Your task to perform on an android device: delete location history Image 0: 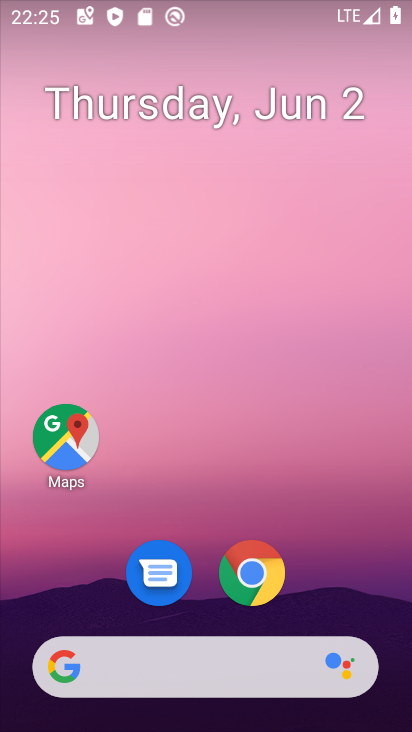
Step 0: drag from (359, 591) to (331, 133)
Your task to perform on an android device: delete location history Image 1: 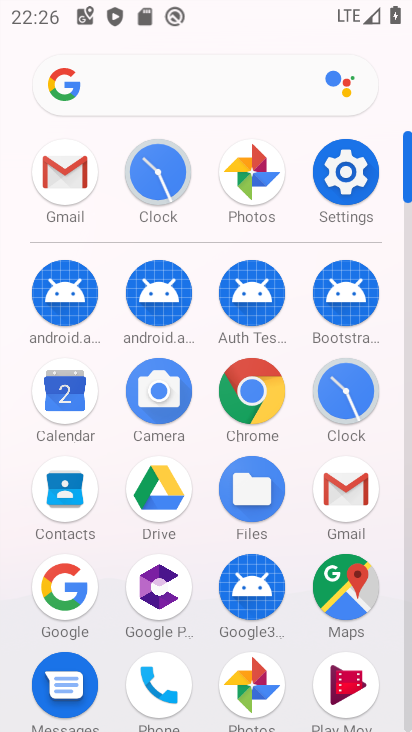
Step 1: click (363, 174)
Your task to perform on an android device: delete location history Image 2: 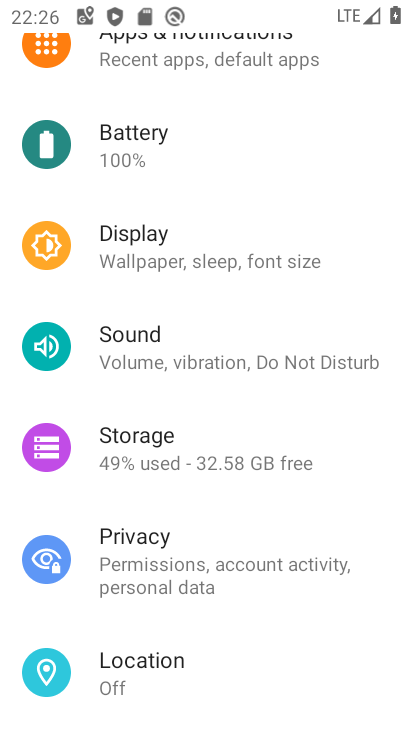
Step 2: drag from (272, 588) to (291, 62)
Your task to perform on an android device: delete location history Image 3: 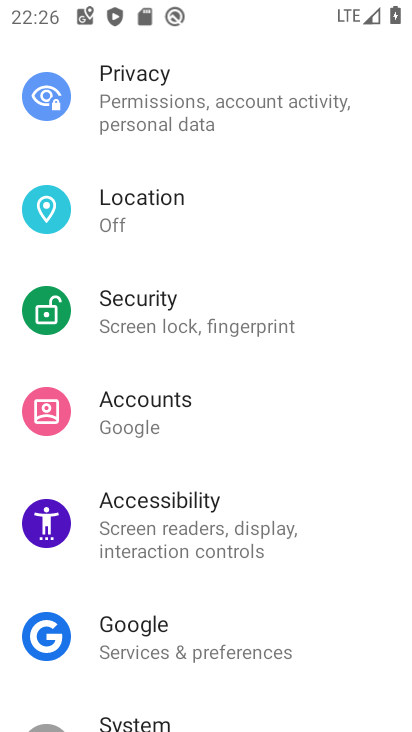
Step 3: click (214, 219)
Your task to perform on an android device: delete location history Image 4: 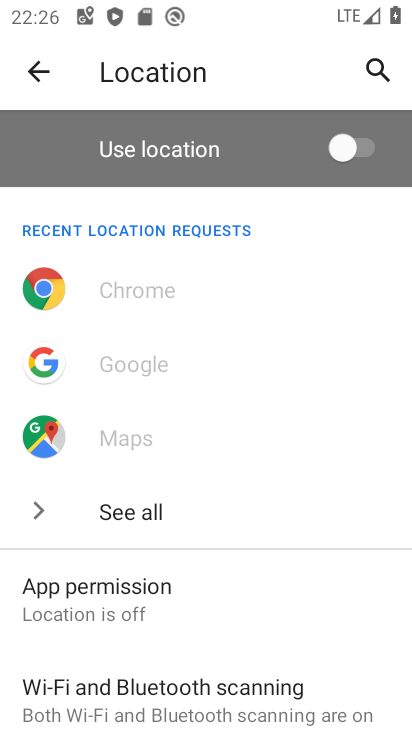
Step 4: drag from (290, 606) to (312, 207)
Your task to perform on an android device: delete location history Image 5: 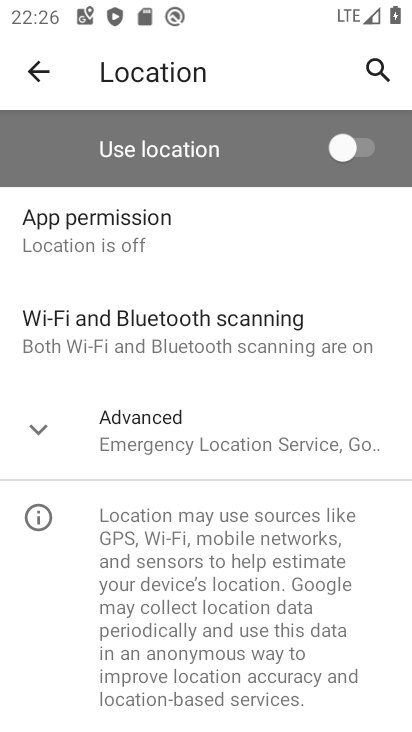
Step 5: click (269, 433)
Your task to perform on an android device: delete location history Image 6: 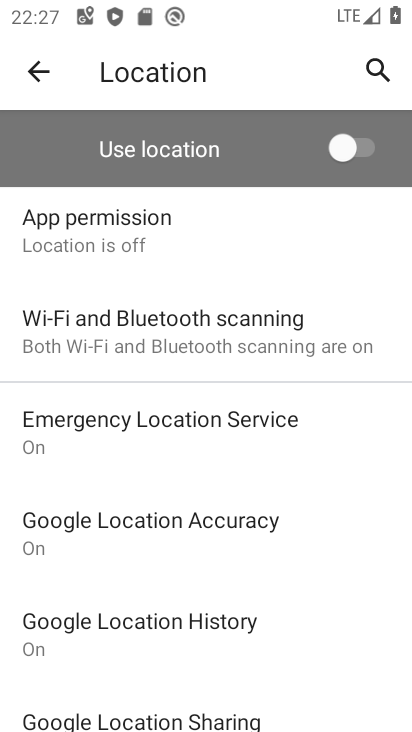
Step 6: click (210, 622)
Your task to perform on an android device: delete location history Image 7: 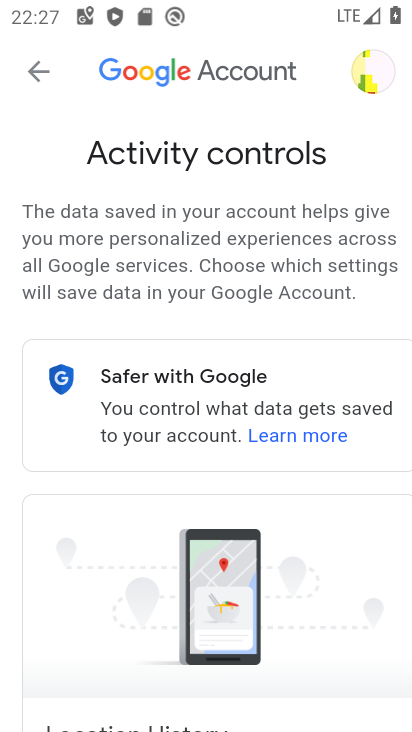
Step 7: drag from (210, 651) to (251, 211)
Your task to perform on an android device: delete location history Image 8: 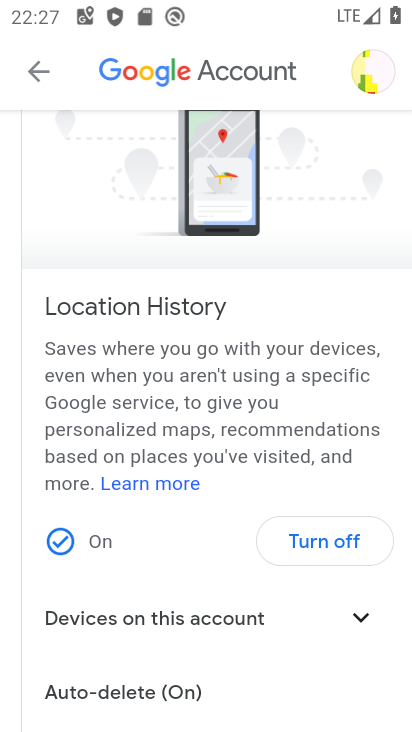
Step 8: drag from (235, 665) to (226, 423)
Your task to perform on an android device: delete location history Image 9: 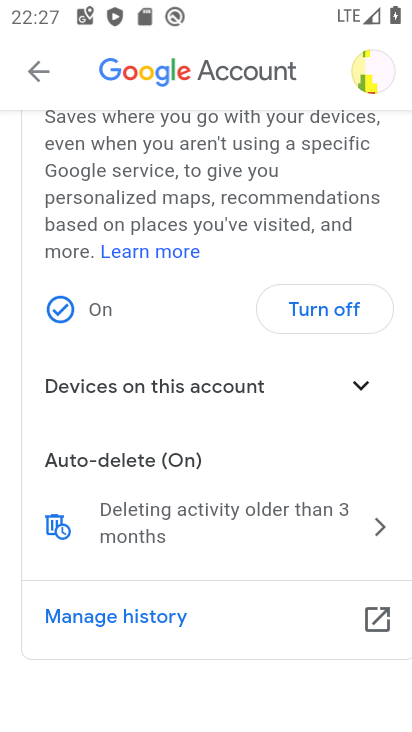
Step 9: click (360, 619)
Your task to perform on an android device: delete location history Image 10: 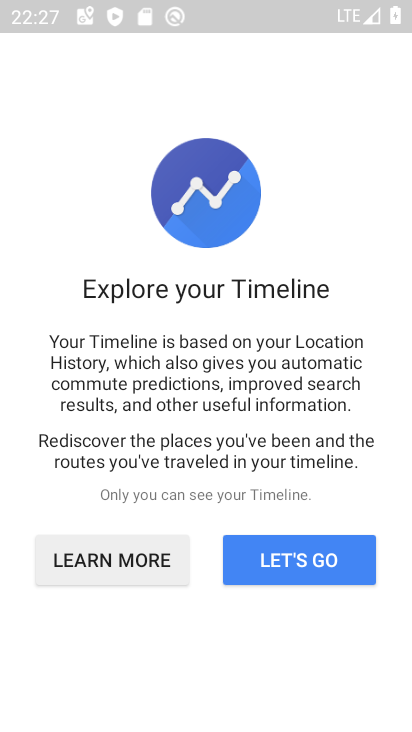
Step 10: click (307, 552)
Your task to perform on an android device: delete location history Image 11: 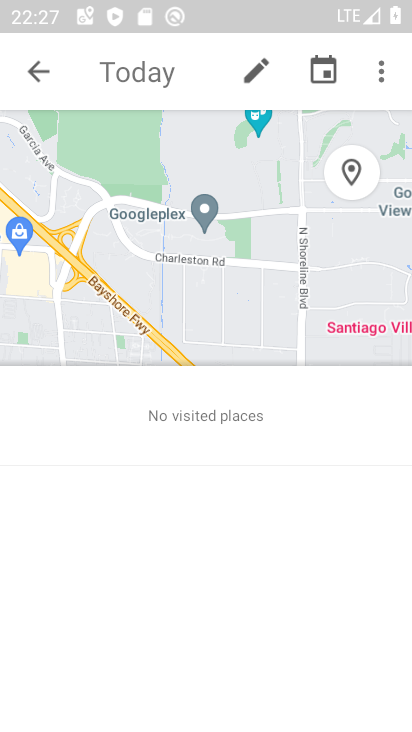
Step 11: click (388, 60)
Your task to perform on an android device: delete location history Image 12: 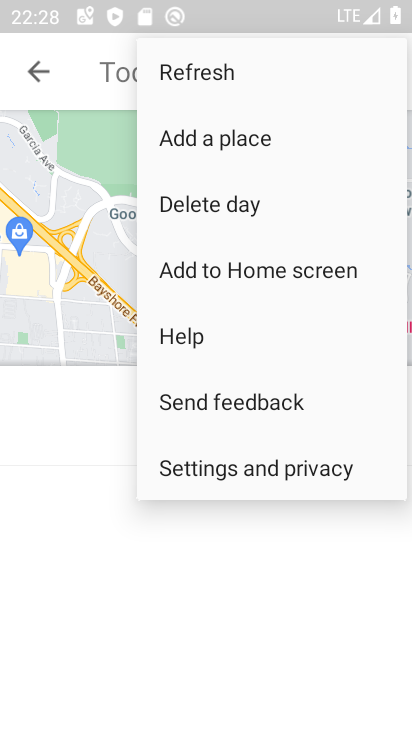
Step 12: click (280, 472)
Your task to perform on an android device: delete location history Image 13: 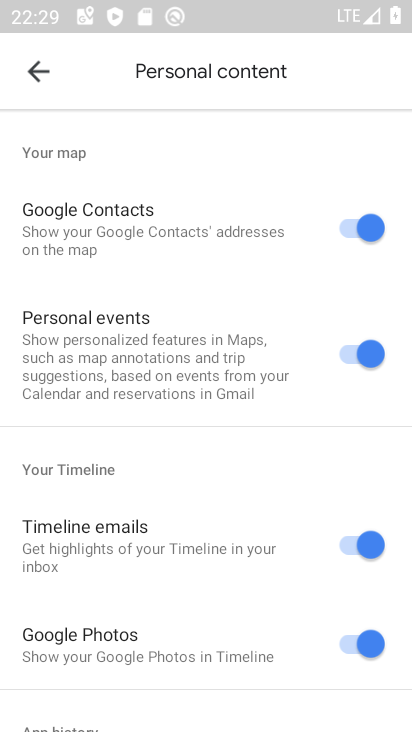
Step 13: drag from (249, 621) to (222, 332)
Your task to perform on an android device: delete location history Image 14: 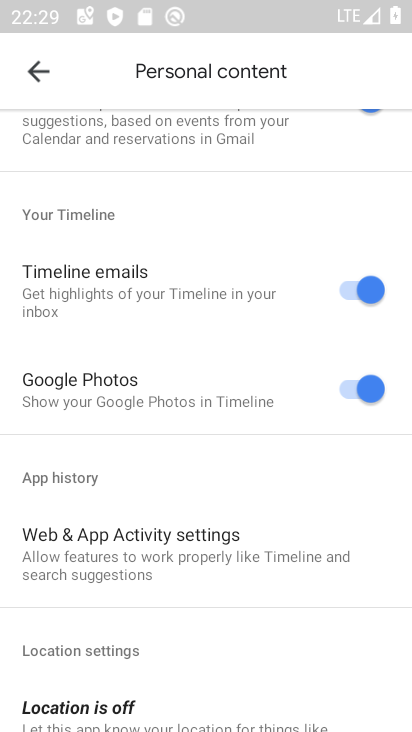
Step 14: drag from (209, 656) to (235, 114)
Your task to perform on an android device: delete location history Image 15: 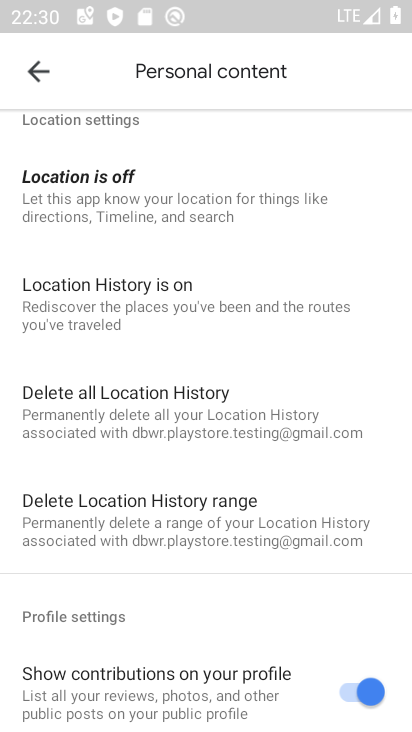
Step 15: click (228, 431)
Your task to perform on an android device: delete location history Image 16: 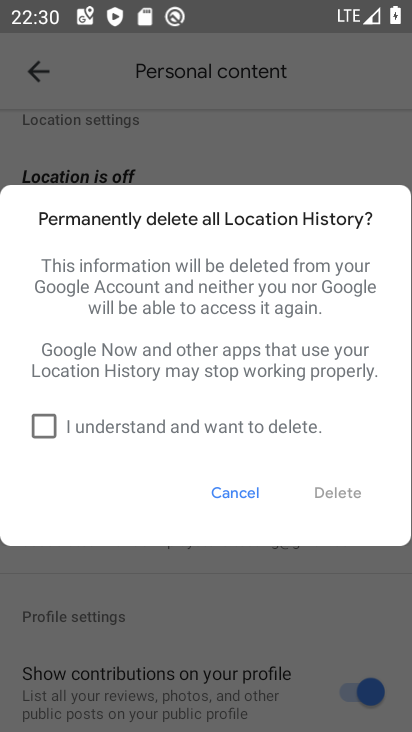
Step 16: click (45, 422)
Your task to perform on an android device: delete location history Image 17: 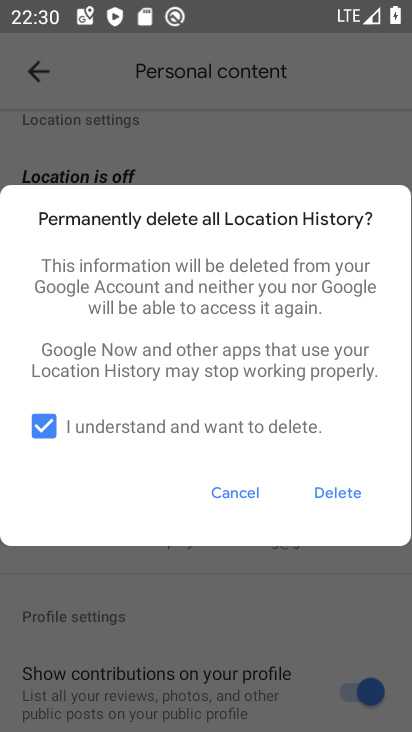
Step 17: click (330, 489)
Your task to perform on an android device: delete location history Image 18: 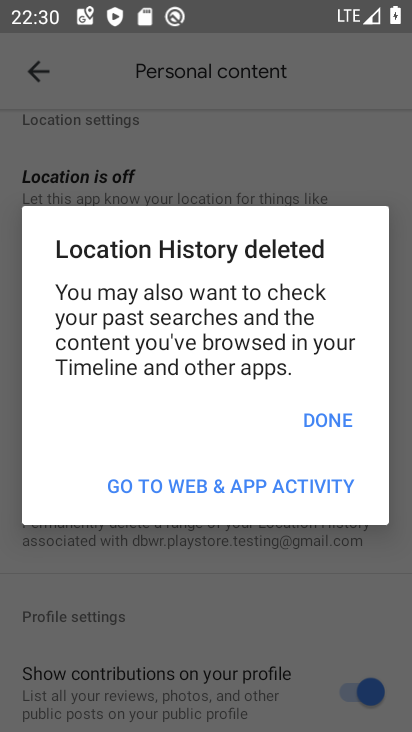
Step 18: click (334, 414)
Your task to perform on an android device: delete location history Image 19: 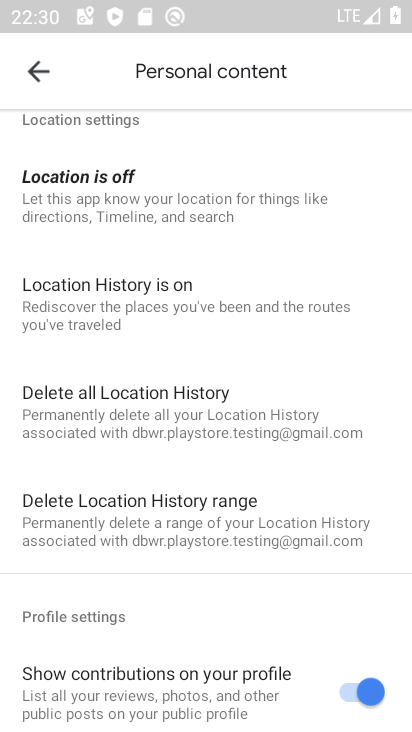
Step 19: task complete